Your task to perform on an android device: move an email to a new category in the gmail app Image 0: 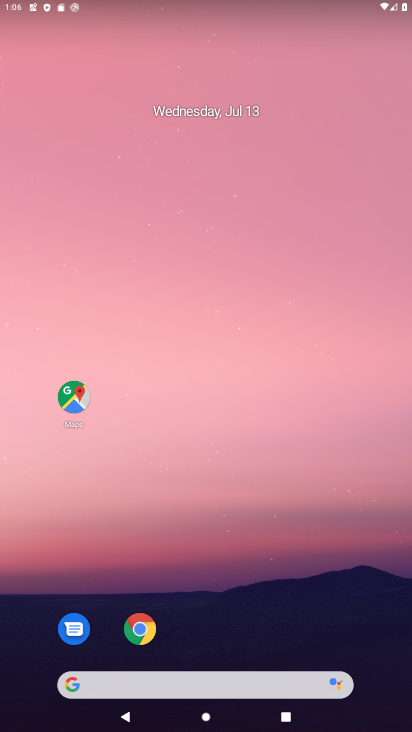
Step 0: click (245, 300)
Your task to perform on an android device: move an email to a new category in the gmail app Image 1: 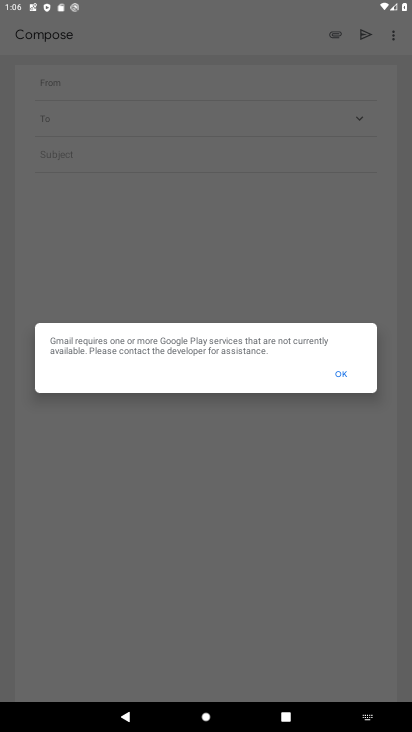
Step 1: press home button
Your task to perform on an android device: move an email to a new category in the gmail app Image 2: 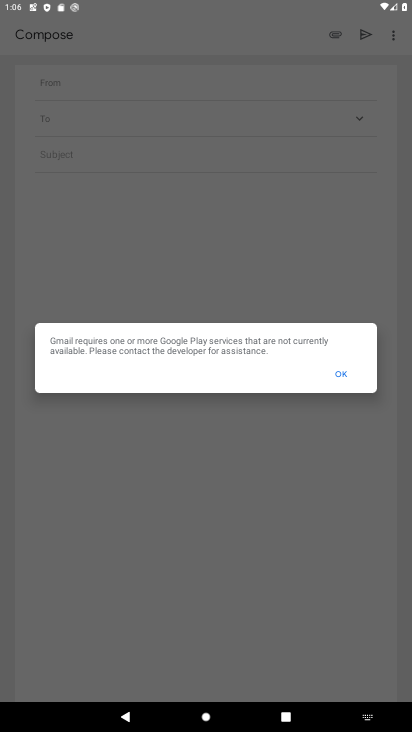
Step 2: click (260, 220)
Your task to perform on an android device: move an email to a new category in the gmail app Image 3: 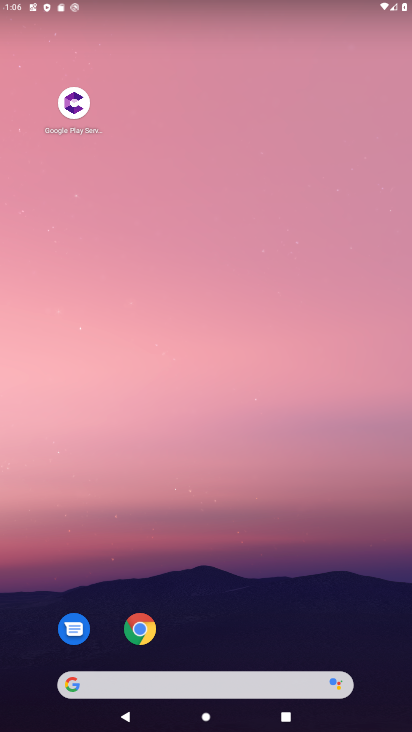
Step 3: drag from (175, 620) to (235, 58)
Your task to perform on an android device: move an email to a new category in the gmail app Image 4: 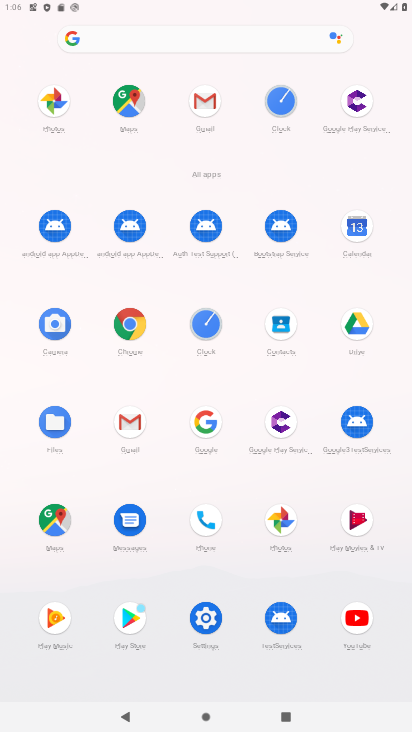
Step 4: drag from (221, 671) to (221, 322)
Your task to perform on an android device: move an email to a new category in the gmail app Image 5: 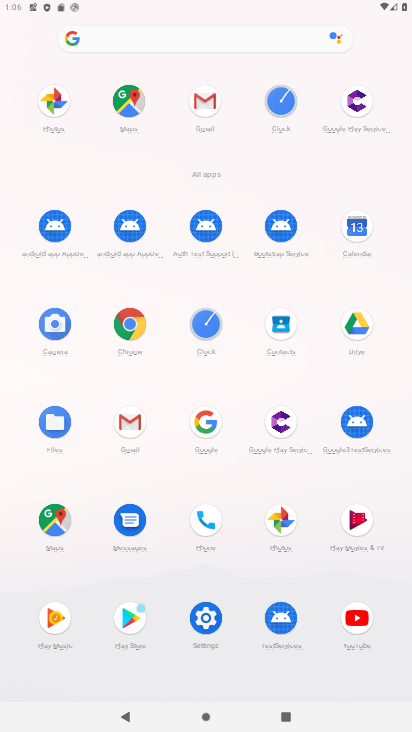
Step 5: click (112, 426)
Your task to perform on an android device: move an email to a new category in the gmail app Image 6: 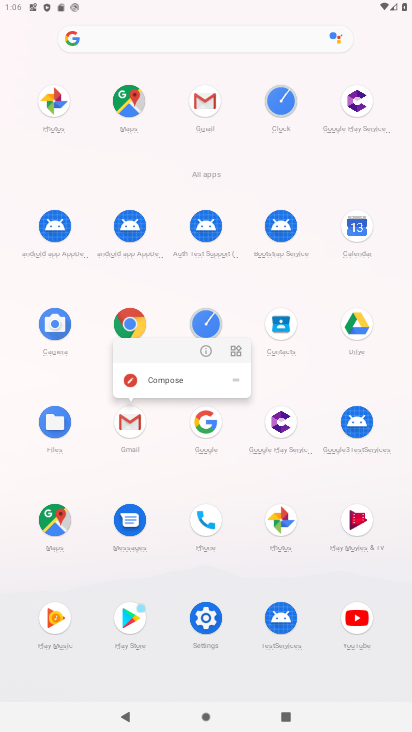
Step 6: click (209, 348)
Your task to perform on an android device: move an email to a new category in the gmail app Image 7: 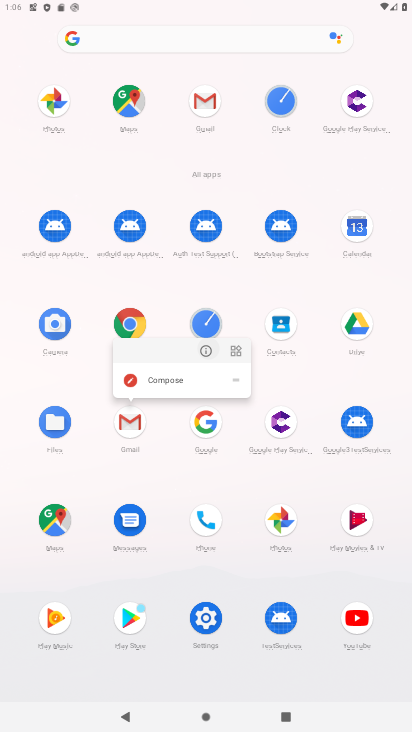
Step 7: click (208, 348)
Your task to perform on an android device: move an email to a new category in the gmail app Image 8: 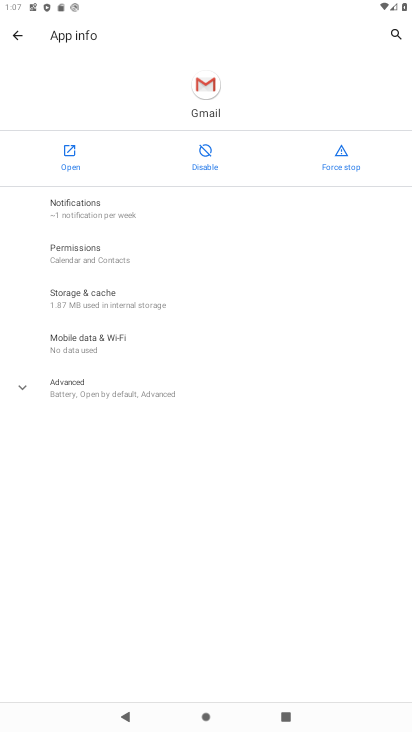
Step 8: click (65, 163)
Your task to perform on an android device: move an email to a new category in the gmail app Image 9: 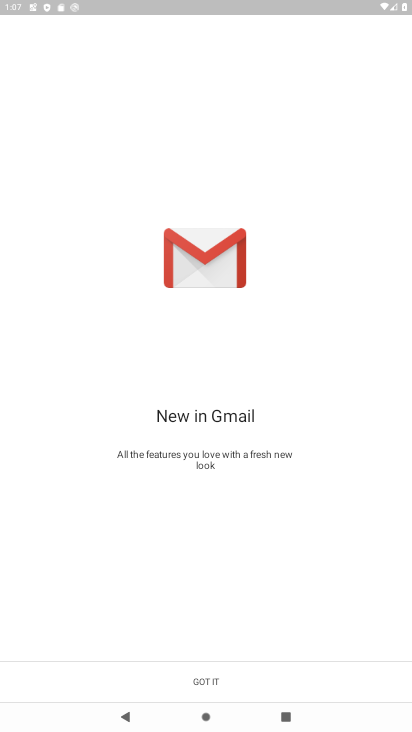
Step 9: drag from (214, 444) to (226, 256)
Your task to perform on an android device: move an email to a new category in the gmail app Image 10: 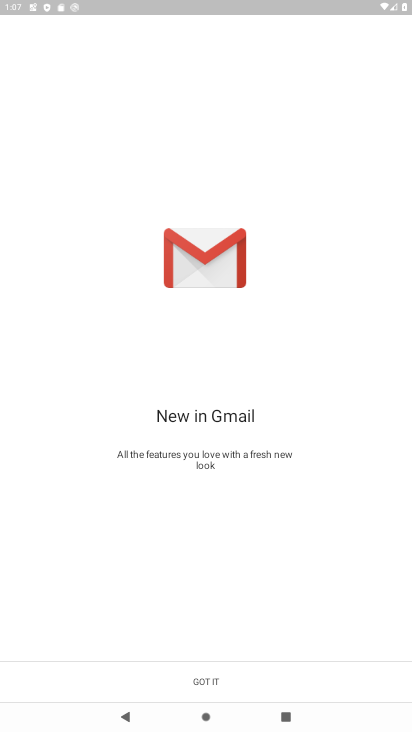
Step 10: click (200, 681)
Your task to perform on an android device: move an email to a new category in the gmail app Image 11: 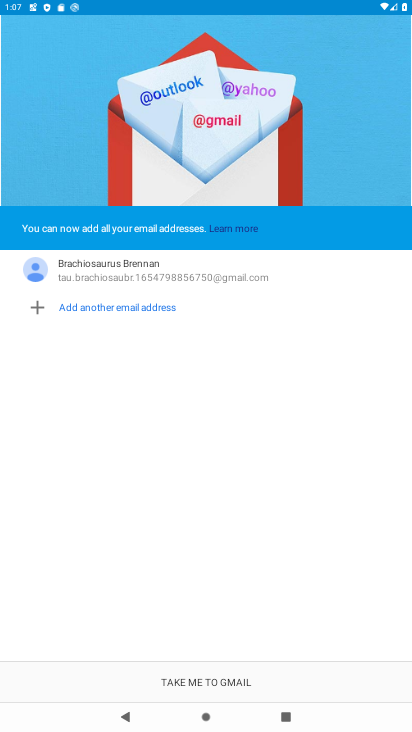
Step 11: click (211, 673)
Your task to perform on an android device: move an email to a new category in the gmail app Image 12: 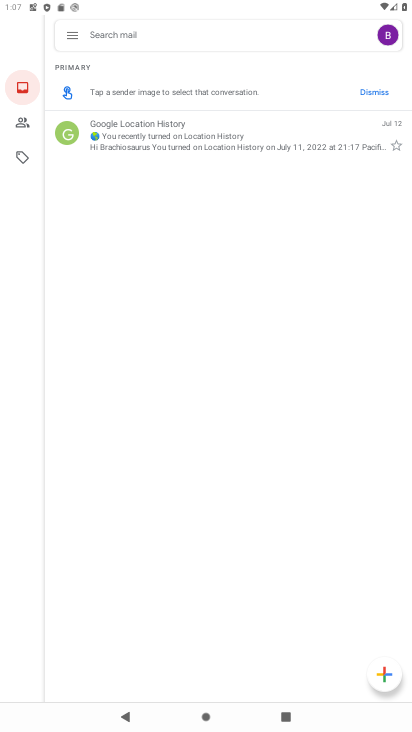
Step 12: click (178, 445)
Your task to perform on an android device: move an email to a new category in the gmail app Image 13: 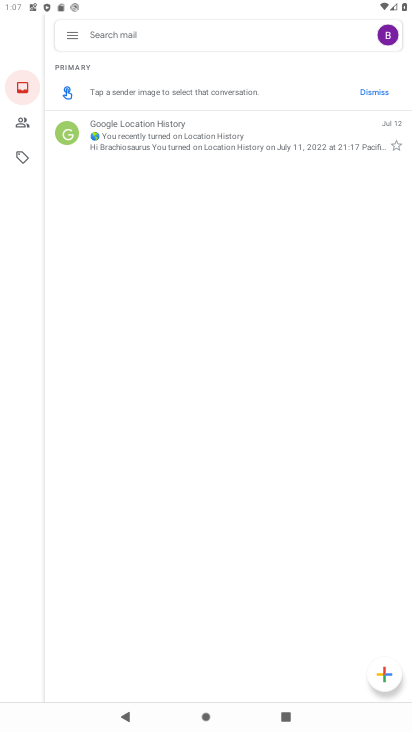
Step 13: task complete